Your task to perform on an android device: snooze an email in the gmail app Image 0: 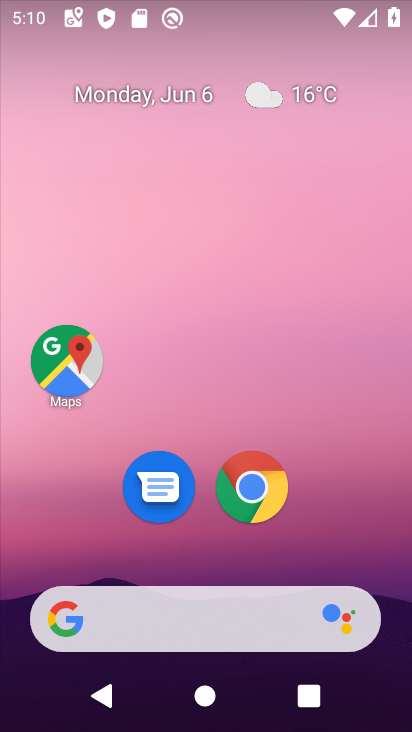
Step 0: drag from (232, 412) to (258, 3)
Your task to perform on an android device: snooze an email in the gmail app Image 1: 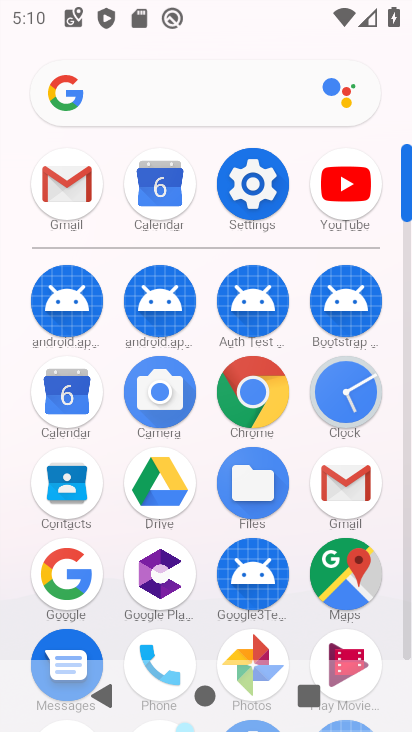
Step 1: click (74, 189)
Your task to perform on an android device: snooze an email in the gmail app Image 2: 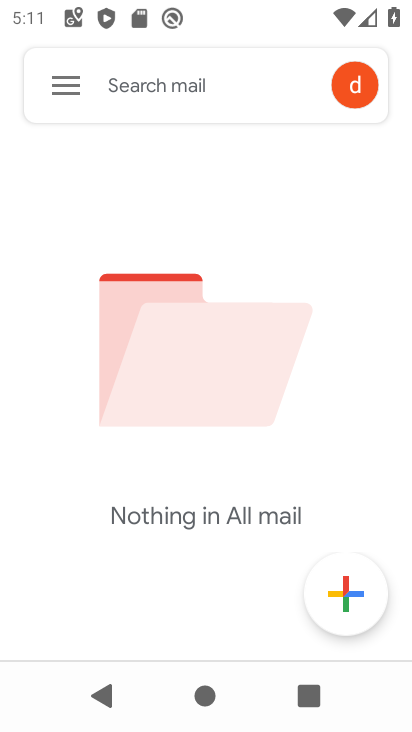
Step 2: task complete